Your task to perform on an android device: search for starred emails in the gmail app Image 0: 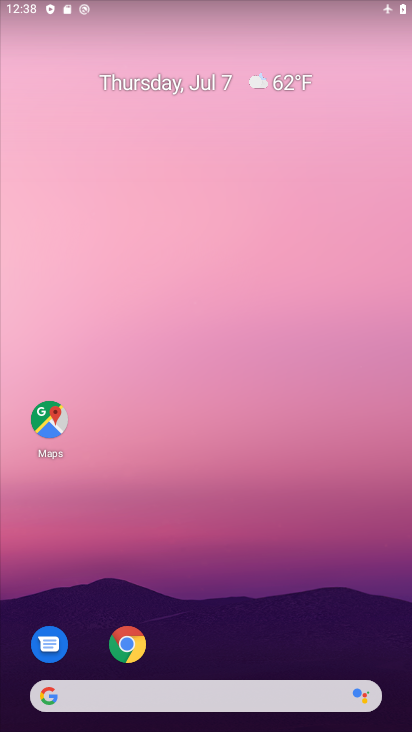
Step 0: drag from (2, 647) to (265, 176)
Your task to perform on an android device: search for starred emails in the gmail app Image 1: 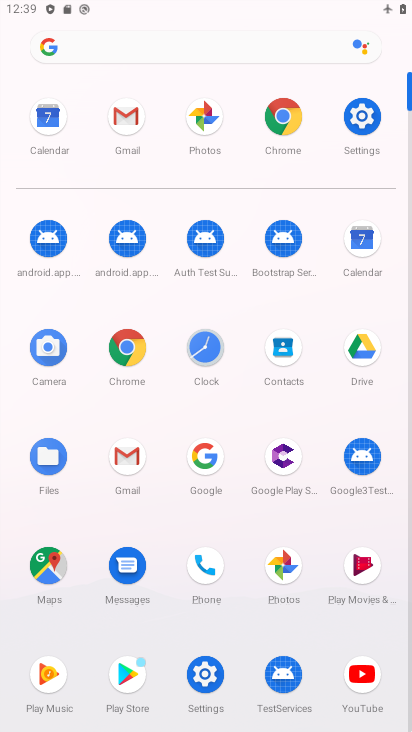
Step 1: click (139, 463)
Your task to perform on an android device: search for starred emails in the gmail app Image 2: 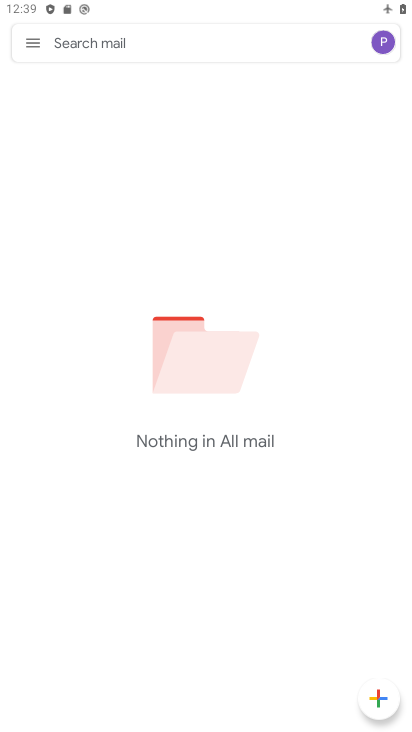
Step 2: task complete